Your task to perform on an android device: turn off location Image 0: 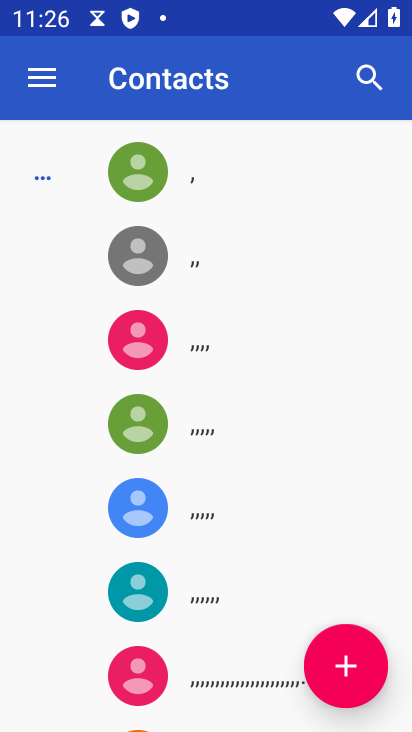
Step 0: press home button
Your task to perform on an android device: turn off location Image 1: 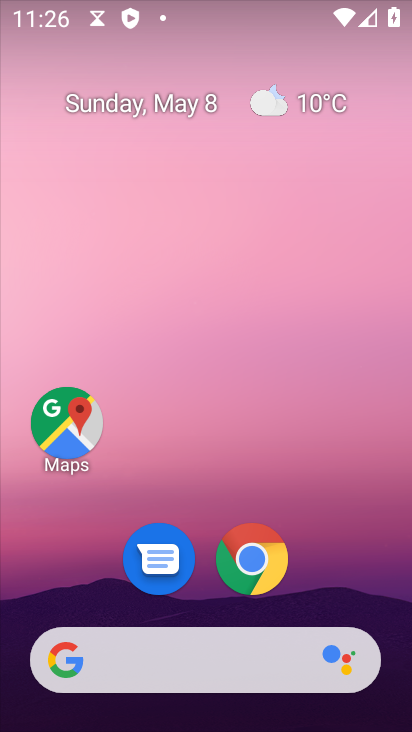
Step 1: drag from (352, 535) to (310, 4)
Your task to perform on an android device: turn off location Image 2: 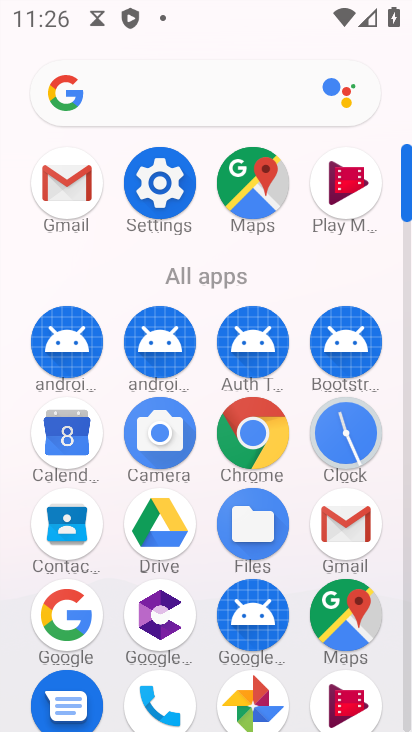
Step 2: click (160, 183)
Your task to perform on an android device: turn off location Image 3: 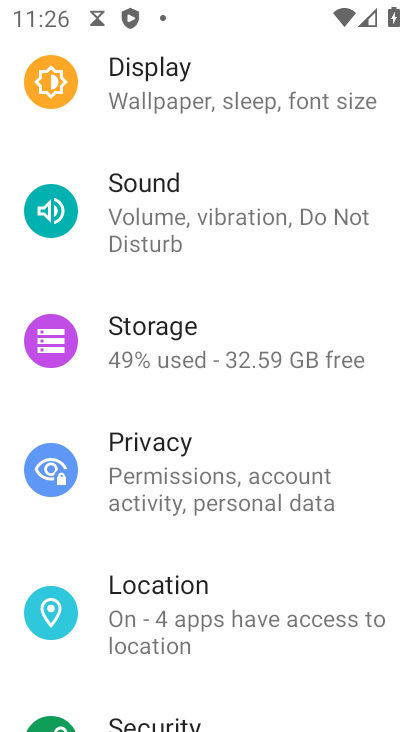
Step 3: click (192, 573)
Your task to perform on an android device: turn off location Image 4: 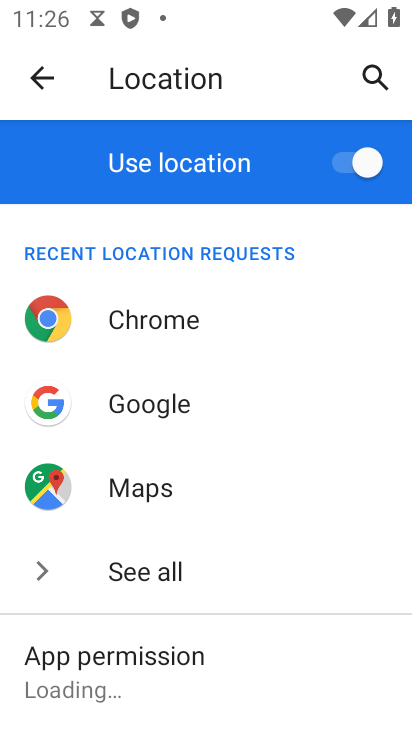
Step 4: click (345, 171)
Your task to perform on an android device: turn off location Image 5: 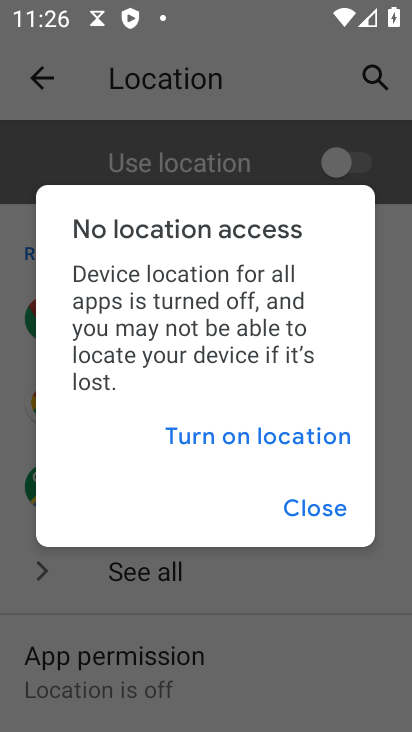
Step 5: click (312, 491)
Your task to perform on an android device: turn off location Image 6: 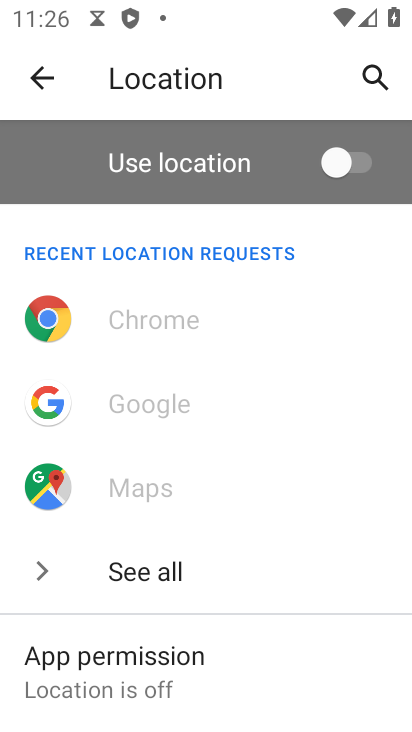
Step 6: task complete